Your task to perform on an android device: Open the web browser Image 0: 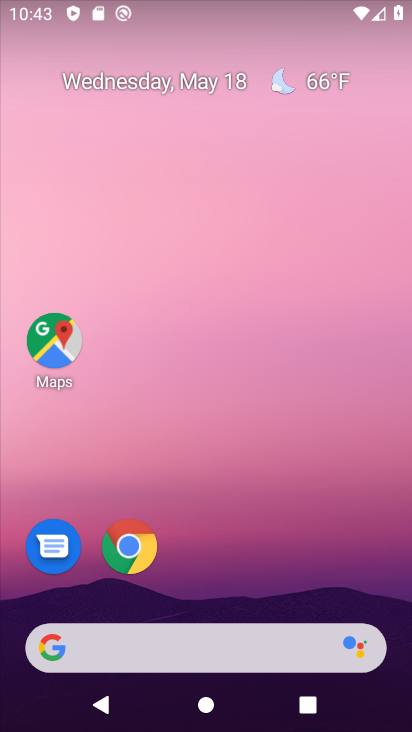
Step 0: click (127, 551)
Your task to perform on an android device: Open the web browser Image 1: 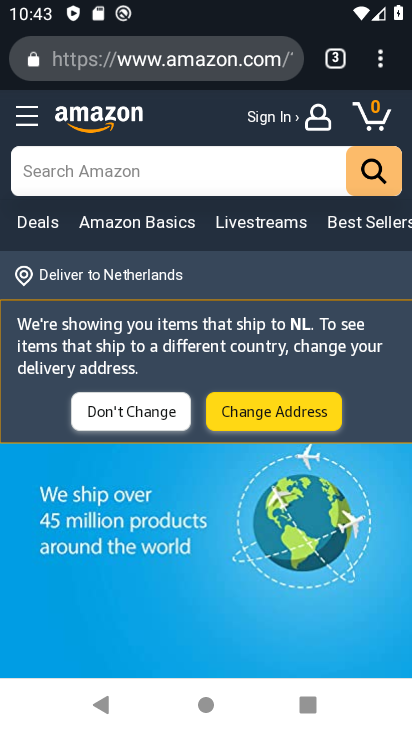
Step 1: task complete